Your task to perform on an android device: delete a single message in the gmail app Image 0: 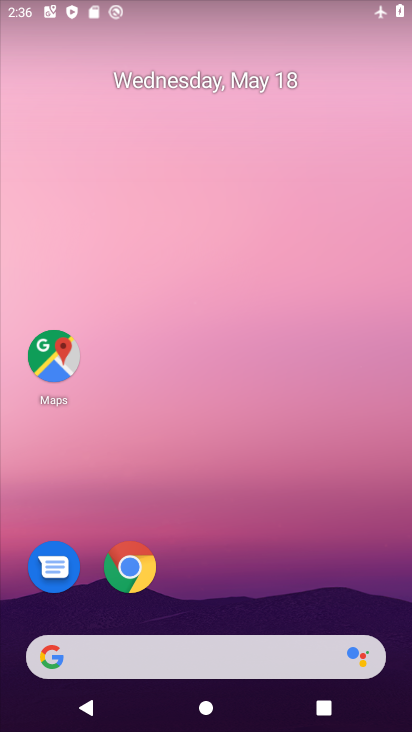
Step 0: drag from (278, 577) to (271, 171)
Your task to perform on an android device: delete a single message in the gmail app Image 1: 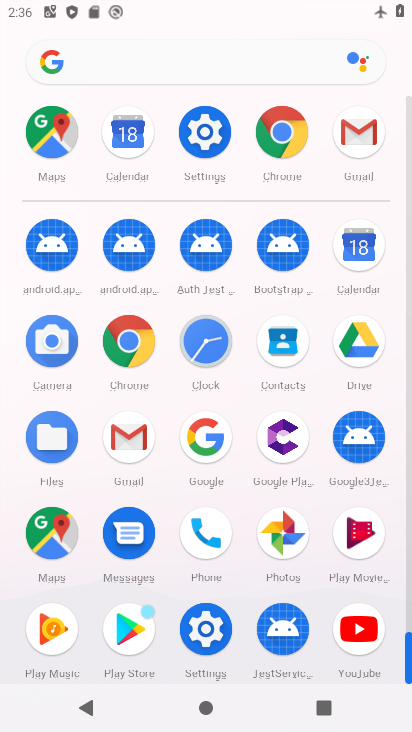
Step 1: click (350, 120)
Your task to perform on an android device: delete a single message in the gmail app Image 2: 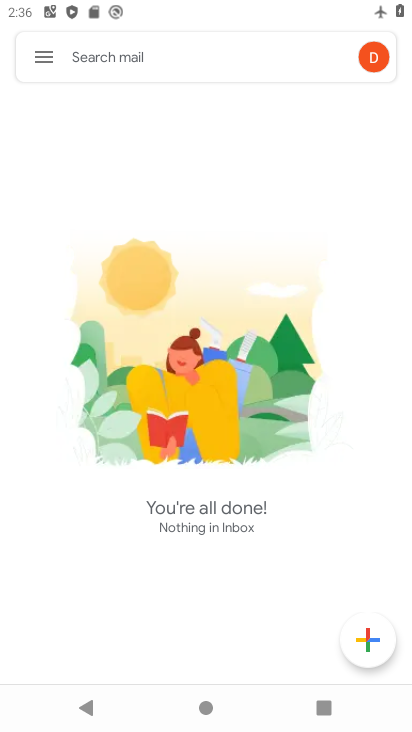
Step 2: click (36, 49)
Your task to perform on an android device: delete a single message in the gmail app Image 3: 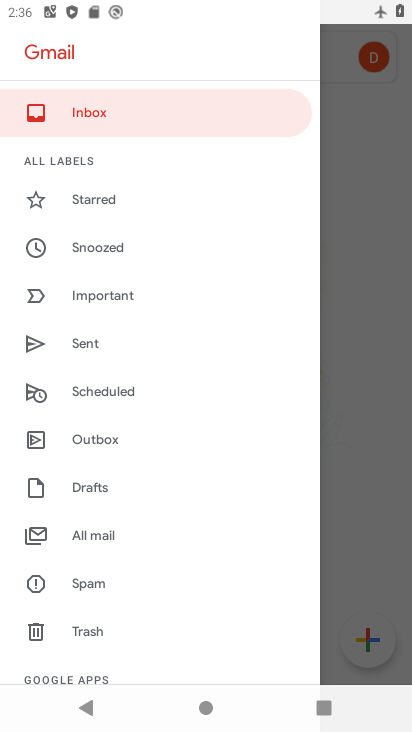
Step 3: click (132, 538)
Your task to perform on an android device: delete a single message in the gmail app Image 4: 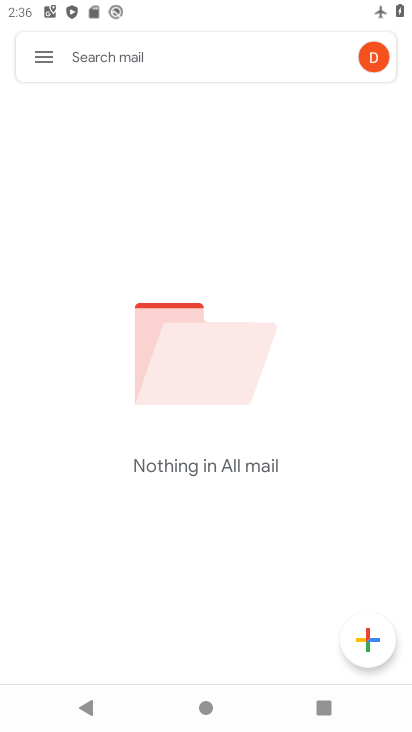
Step 4: task complete